Your task to perform on an android device: Open the phone app and click the voicemail tab. Image 0: 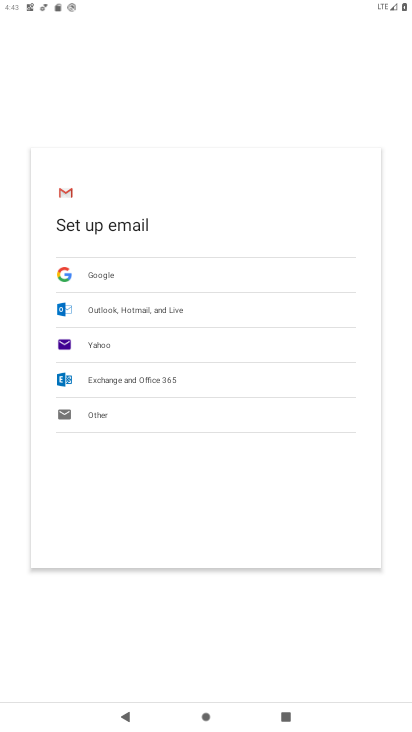
Step 0: press home button
Your task to perform on an android device: Open the phone app and click the voicemail tab. Image 1: 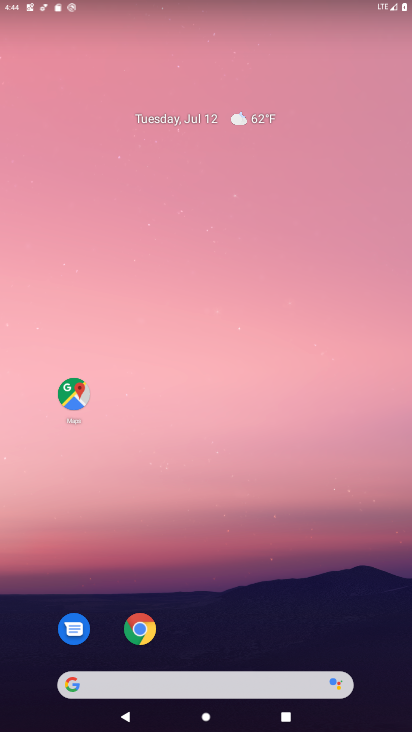
Step 1: drag from (318, 411) to (293, 15)
Your task to perform on an android device: Open the phone app and click the voicemail tab. Image 2: 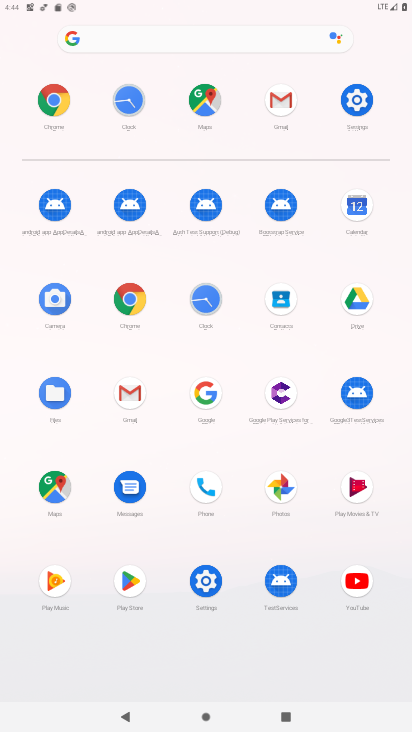
Step 2: click (195, 491)
Your task to perform on an android device: Open the phone app and click the voicemail tab. Image 3: 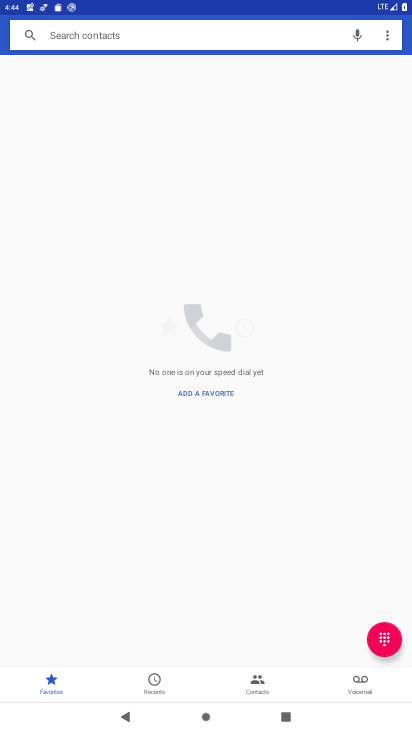
Step 3: click (366, 683)
Your task to perform on an android device: Open the phone app and click the voicemail tab. Image 4: 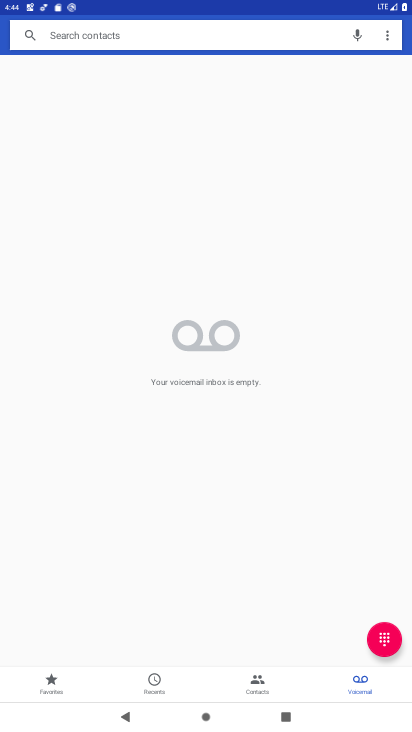
Step 4: task complete